Your task to perform on an android device: Open Google Chrome and open the bookmarks view Image 0: 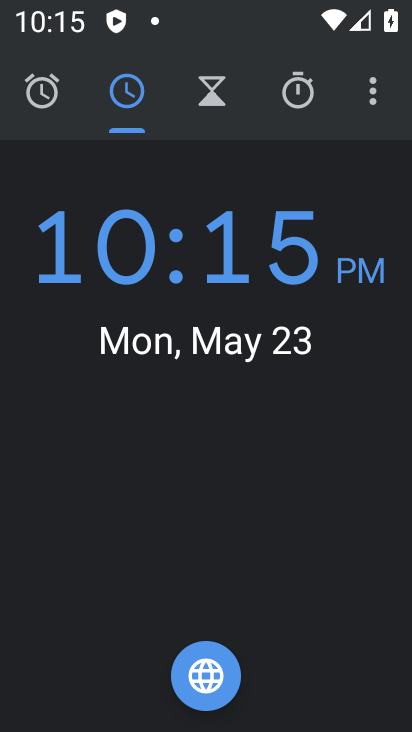
Step 0: press home button
Your task to perform on an android device: Open Google Chrome and open the bookmarks view Image 1: 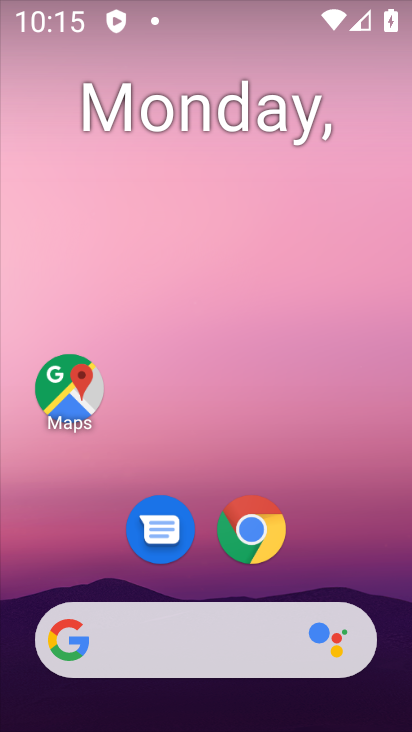
Step 1: click (249, 530)
Your task to perform on an android device: Open Google Chrome and open the bookmarks view Image 2: 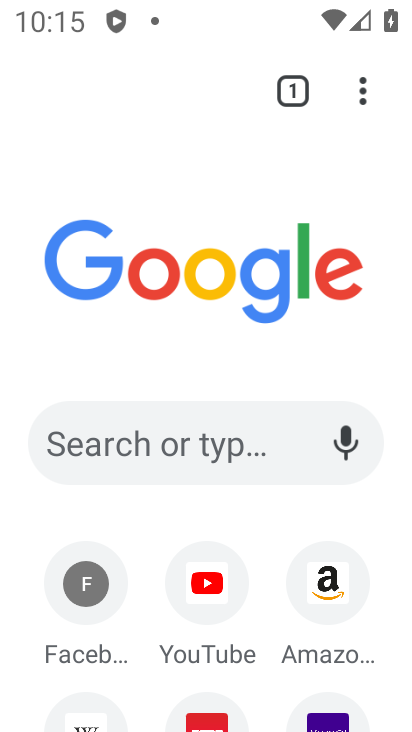
Step 2: click (362, 90)
Your task to perform on an android device: Open Google Chrome and open the bookmarks view Image 3: 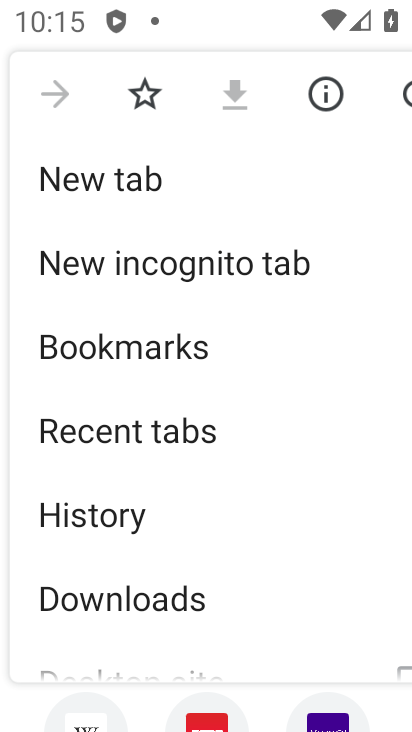
Step 3: click (138, 335)
Your task to perform on an android device: Open Google Chrome and open the bookmarks view Image 4: 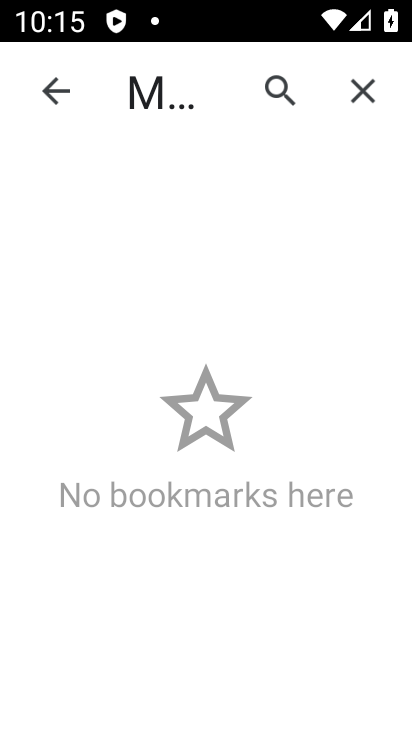
Step 4: task complete